Your task to perform on an android device: change text size in settings app Image 0: 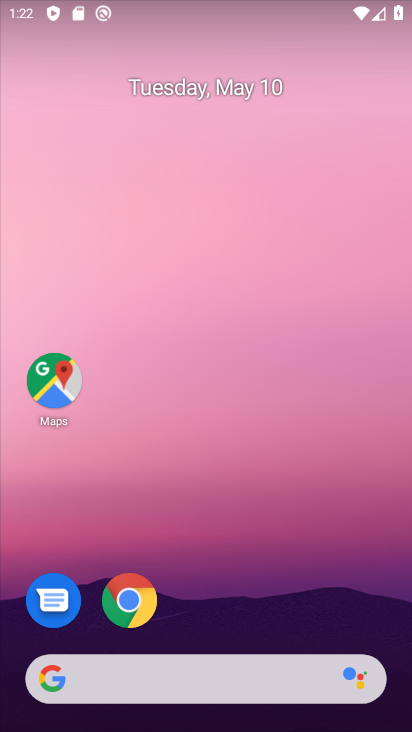
Step 0: drag from (254, 581) to (238, 115)
Your task to perform on an android device: change text size in settings app Image 1: 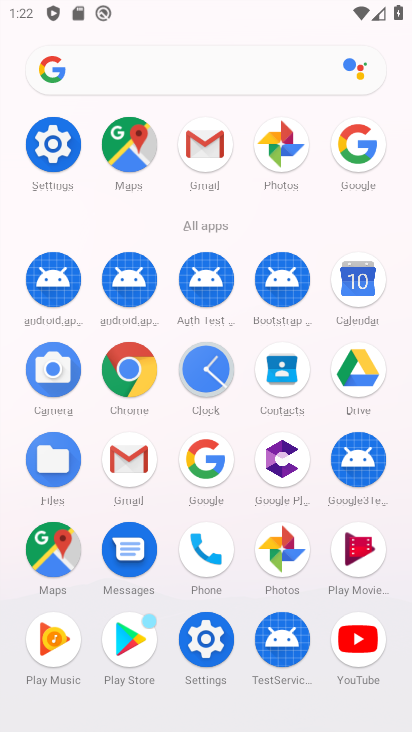
Step 1: click (226, 635)
Your task to perform on an android device: change text size in settings app Image 2: 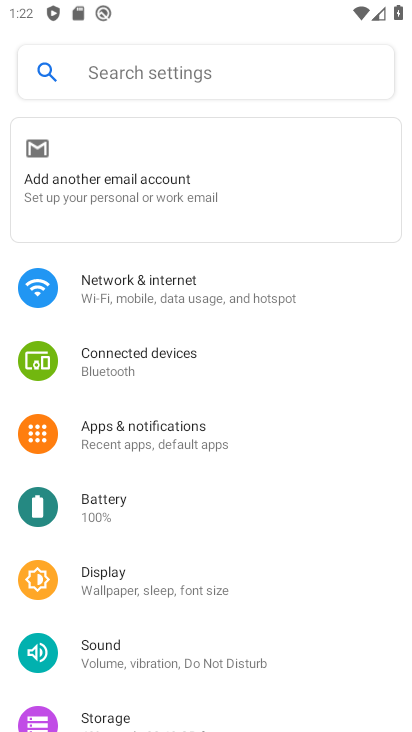
Step 2: drag from (224, 614) to (247, 56)
Your task to perform on an android device: change text size in settings app Image 3: 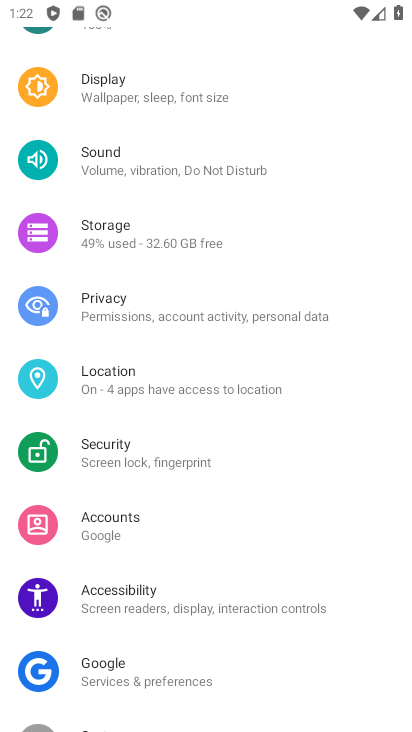
Step 3: drag from (205, 649) to (251, 613)
Your task to perform on an android device: change text size in settings app Image 4: 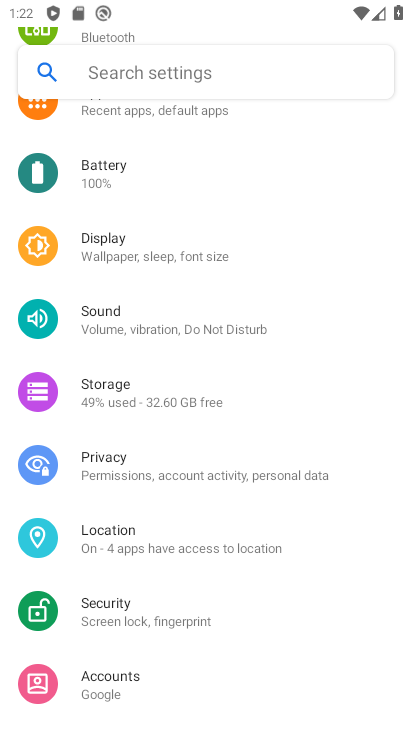
Step 4: click (167, 260)
Your task to perform on an android device: change text size in settings app Image 5: 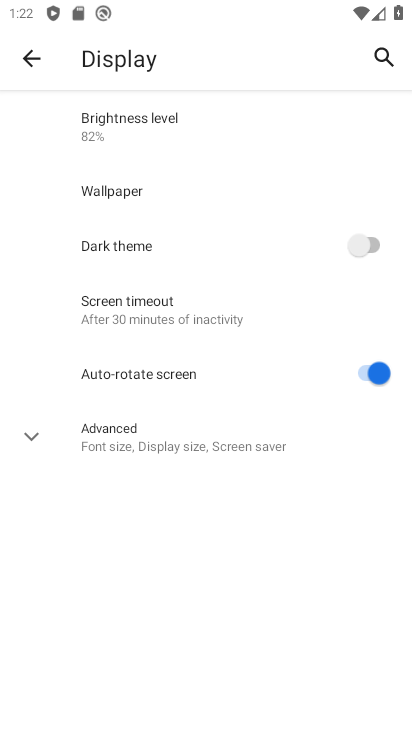
Step 5: click (137, 442)
Your task to perform on an android device: change text size in settings app Image 6: 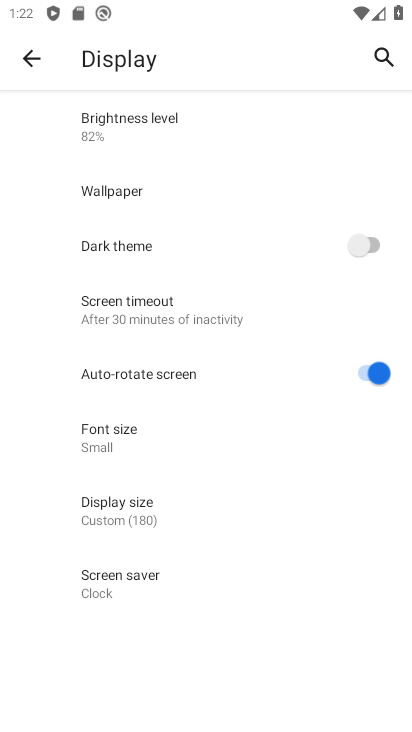
Step 6: click (138, 440)
Your task to perform on an android device: change text size in settings app Image 7: 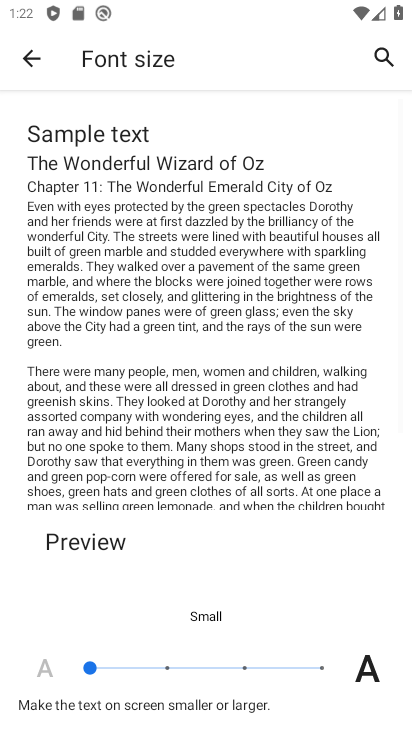
Step 7: task complete